Your task to perform on an android device: change the clock display to digital Image 0: 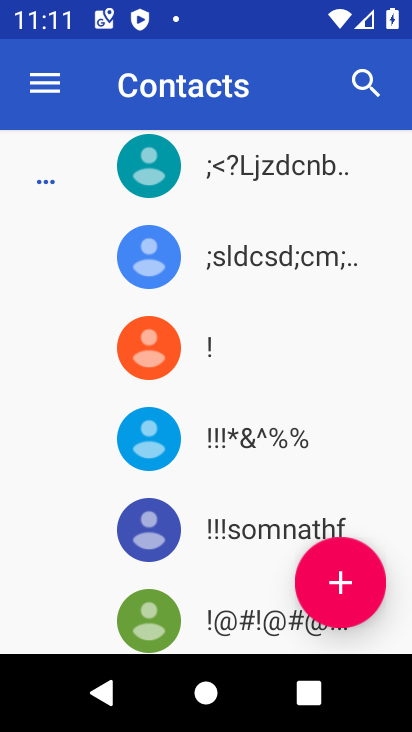
Step 0: drag from (238, 561) to (228, 191)
Your task to perform on an android device: change the clock display to digital Image 1: 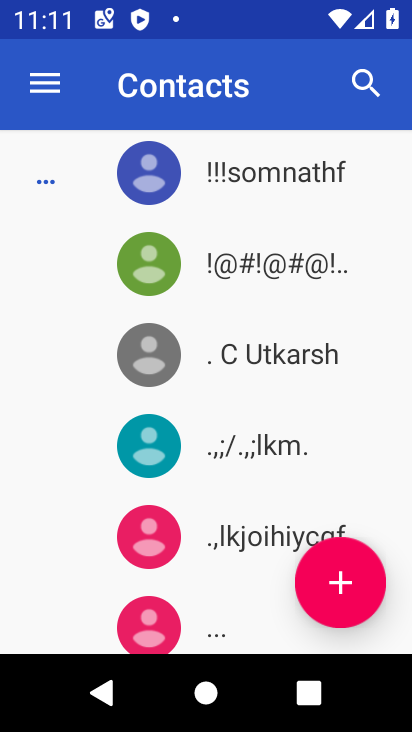
Step 1: press home button
Your task to perform on an android device: change the clock display to digital Image 2: 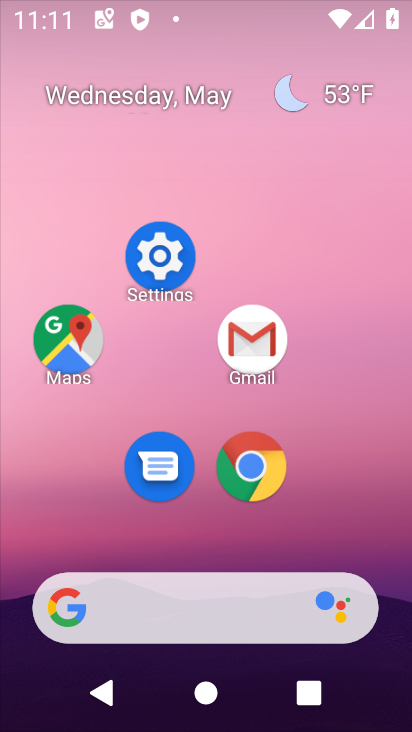
Step 2: drag from (221, 600) to (240, 50)
Your task to perform on an android device: change the clock display to digital Image 3: 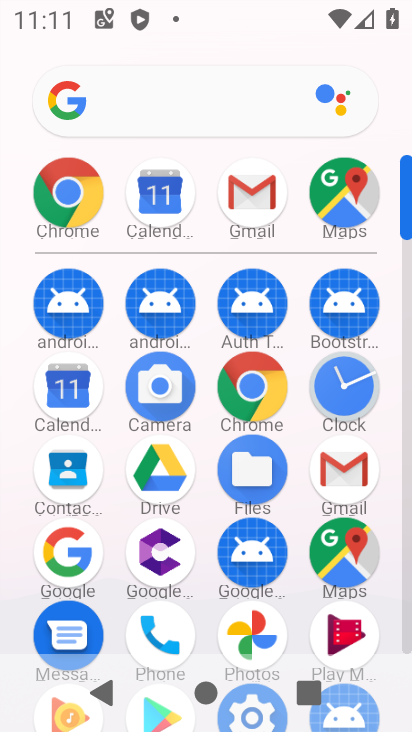
Step 3: click (336, 402)
Your task to perform on an android device: change the clock display to digital Image 4: 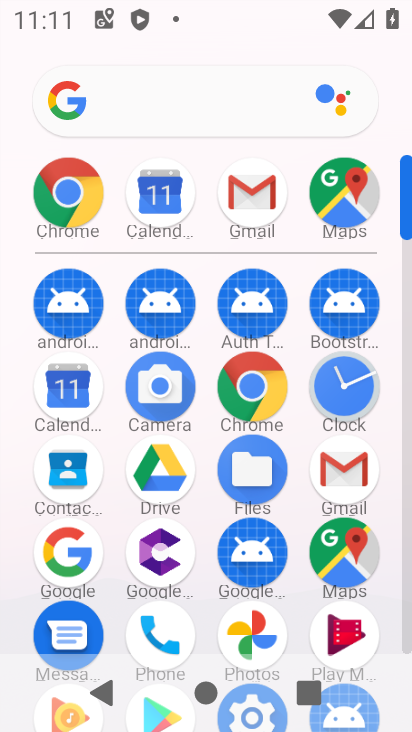
Step 4: click (336, 402)
Your task to perform on an android device: change the clock display to digital Image 5: 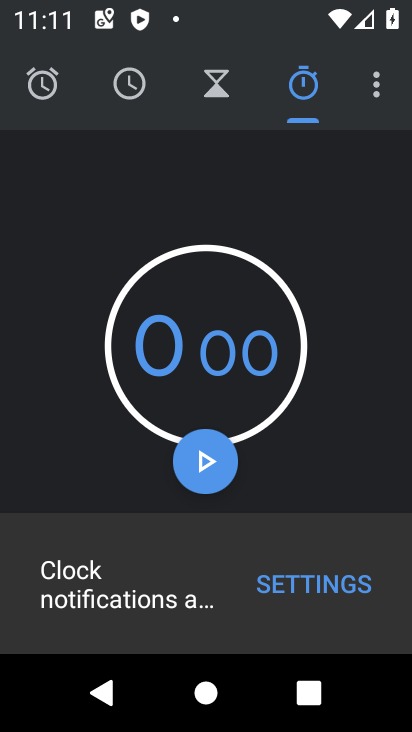
Step 5: click (370, 99)
Your task to perform on an android device: change the clock display to digital Image 6: 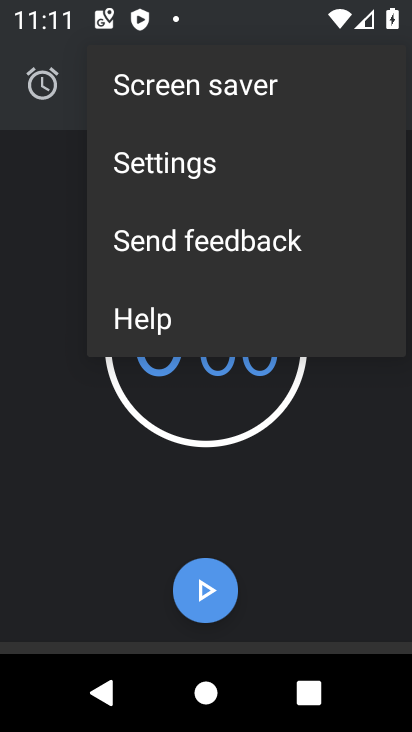
Step 6: click (256, 176)
Your task to perform on an android device: change the clock display to digital Image 7: 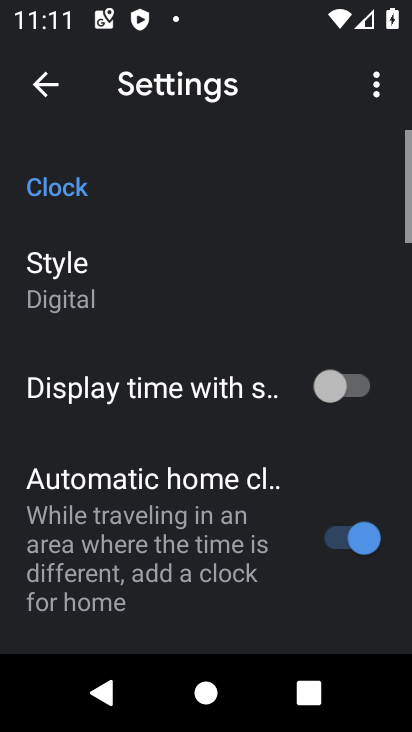
Step 7: drag from (211, 497) to (274, 230)
Your task to perform on an android device: change the clock display to digital Image 8: 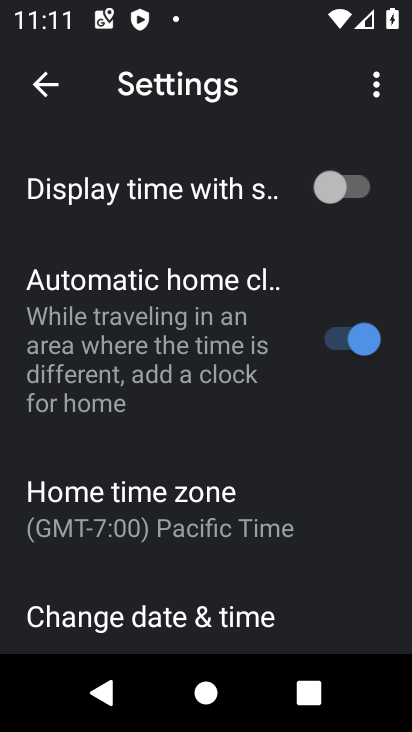
Step 8: drag from (246, 512) to (289, 230)
Your task to perform on an android device: change the clock display to digital Image 9: 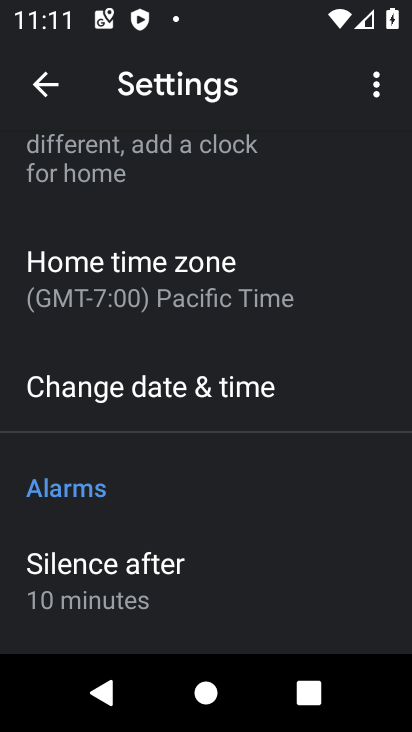
Step 9: drag from (220, 558) to (273, 325)
Your task to perform on an android device: change the clock display to digital Image 10: 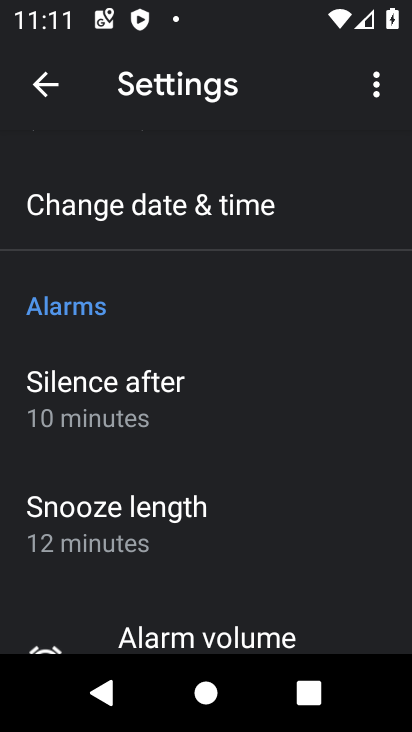
Step 10: drag from (245, 577) to (303, 272)
Your task to perform on an android device: change the clock display to digital Image 11: 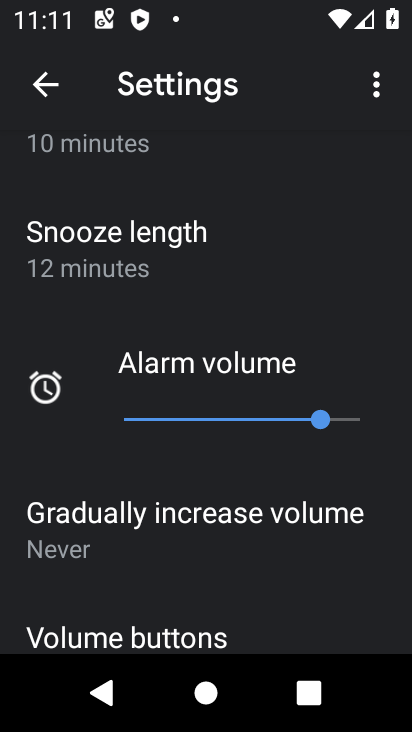
Step 11: drag from (255, 229) to (292, 729)
Your task to perform on an android device: change the clock display to digital Image 12: 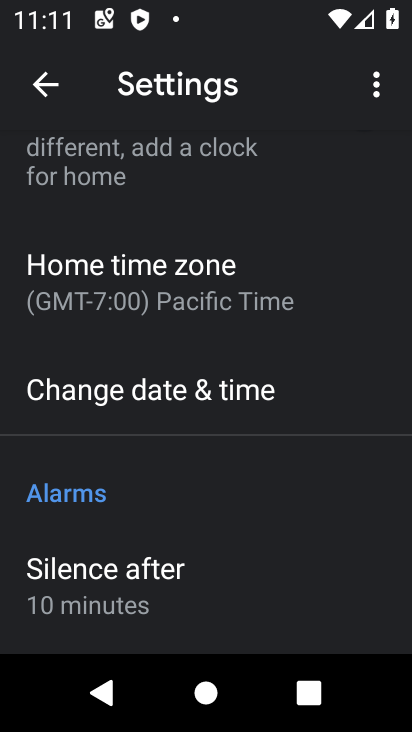
Step 12: drag from (202, 259) to (277, 702)
Your task to perform on an android device: change the clock display to digital Image 13: 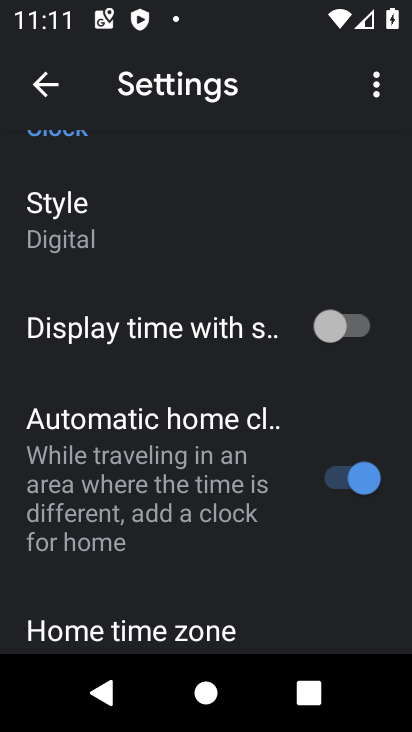
Step 13: click (125, 220)
Your task to perform on an android device: change the clock display to digital Image 14: 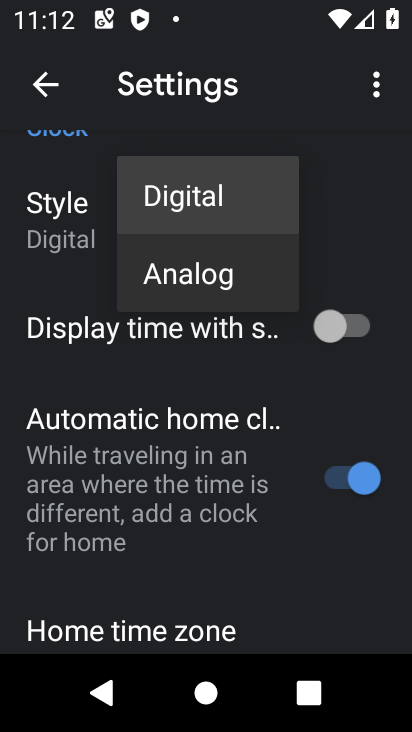
Step 14: click (229, 285)
Your task to perform on an android device: change the clock display to digital Image 15: 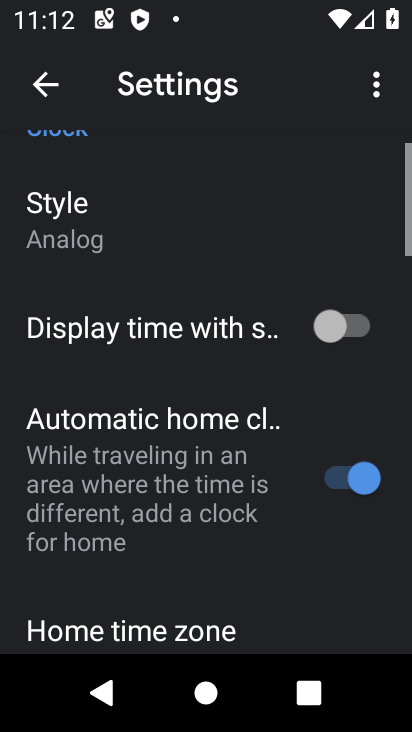
Step 15: task complete